Your task to perform on an android device: check android version Image 0: 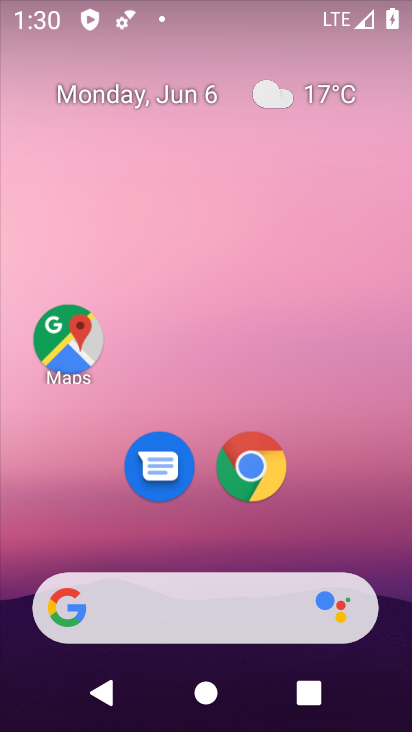
Step 0: drag from (379, 552) to (389, 134)
Your task to perform on an android device: check android version Image 1: 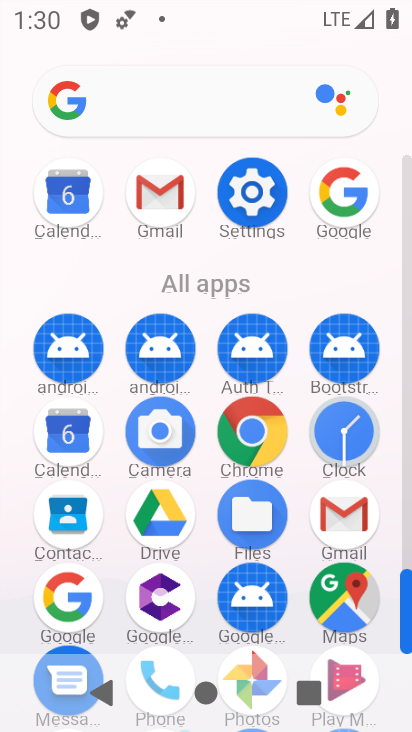
Step 1: click (253, 185)
Your task to perform on an android device: check android version Image 2: 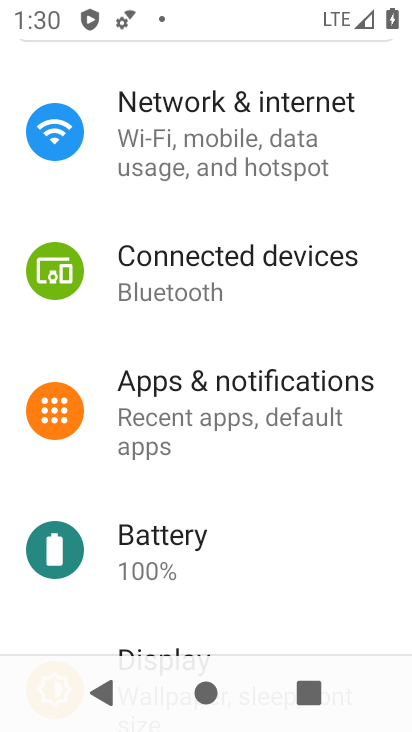
Step 2: drag from (346, 615) to (315, 171)
Your task to perform on an android device: check android version Image 3: 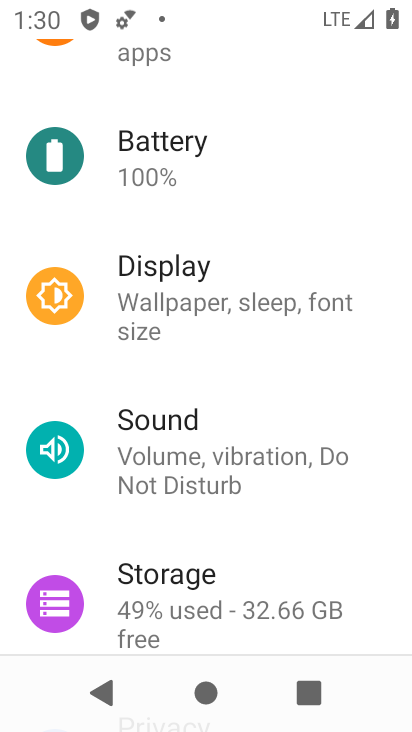
Step 3: drag from (371, 551) to (358, 173)
Your task to perform on an android device: check android version Image 4: 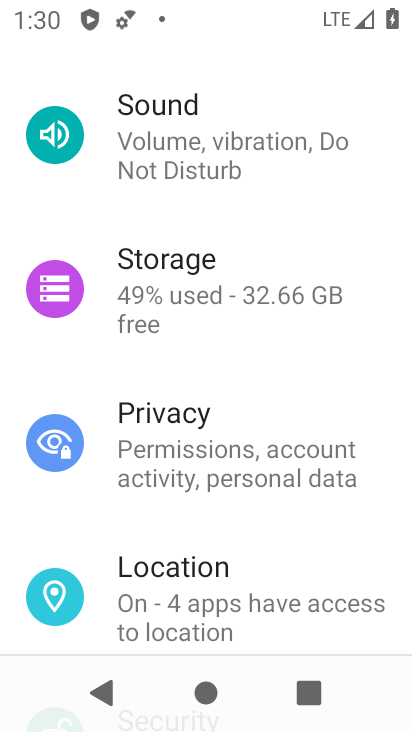
Step 4: drag from (322, 543) to (349, 168)
Your task to perform on an android device: check android version Image 5: 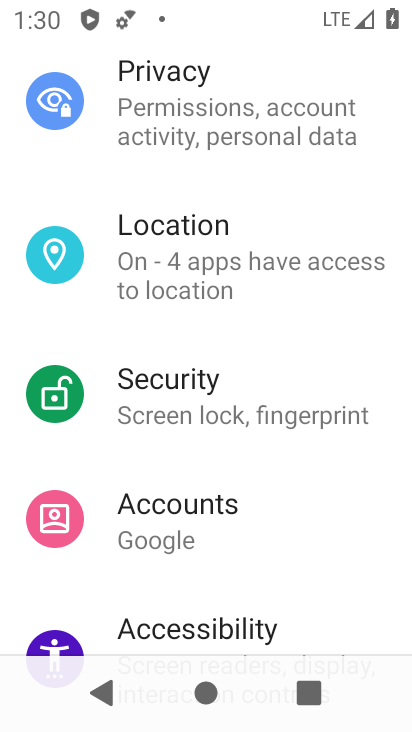
Step 5: drag from (295, 555) to (296, 186)
Your task to perform on an android device: check android version Image 6: 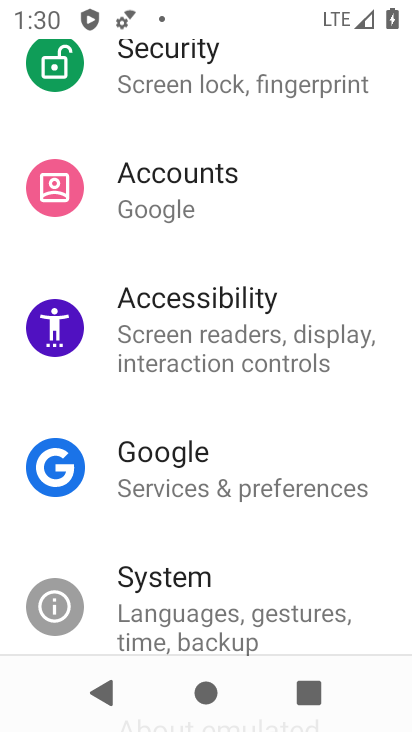
Step 6: drag from (309, 566) to (309, 209)
Your task to perform on an android device: check android version Image 7: 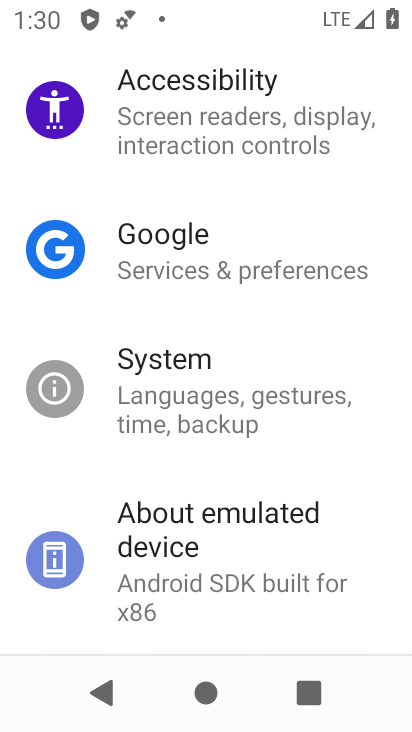
Step 7: click (273, 571)
Your task to perform on an android device: check android version Image 8: 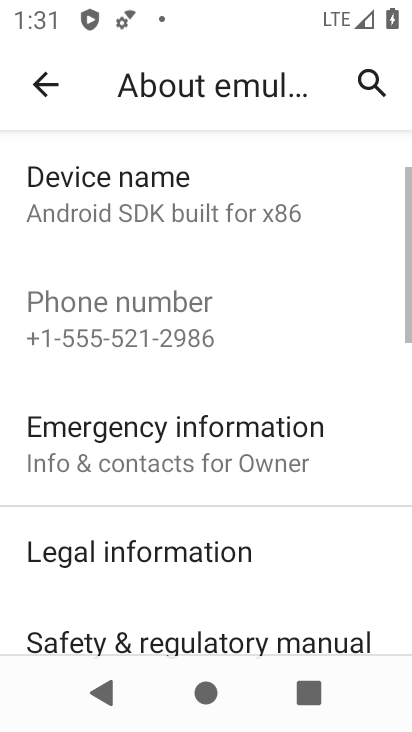
Step 8: task complete